Your task to perform on an android device: turn smart compose on in the gmail app Image 0: 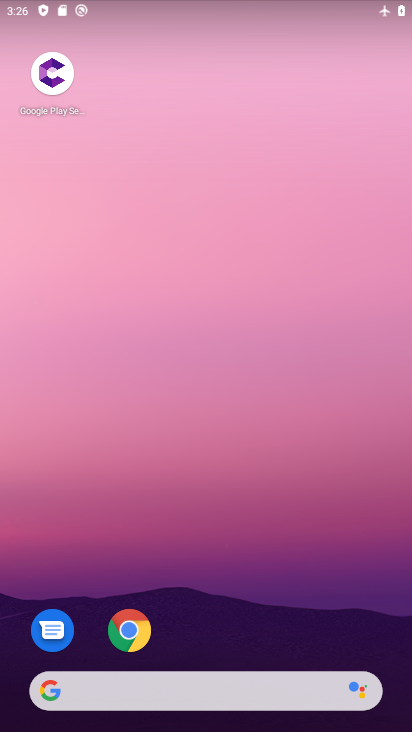
Step 0: click (267, 35)
Your task to perform on an android device: turn smart compose on in the gmail app Image 1: 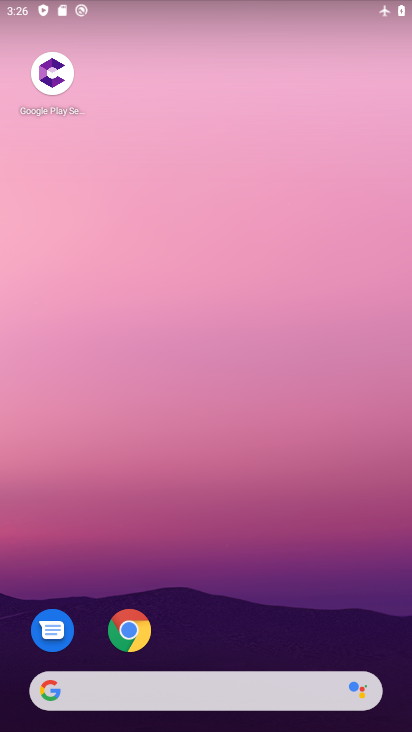
Step 1: drag from (188, 569) to (260, 37)
Your task to perform on an android device: turn smart compose on in the gmail app Image 2: 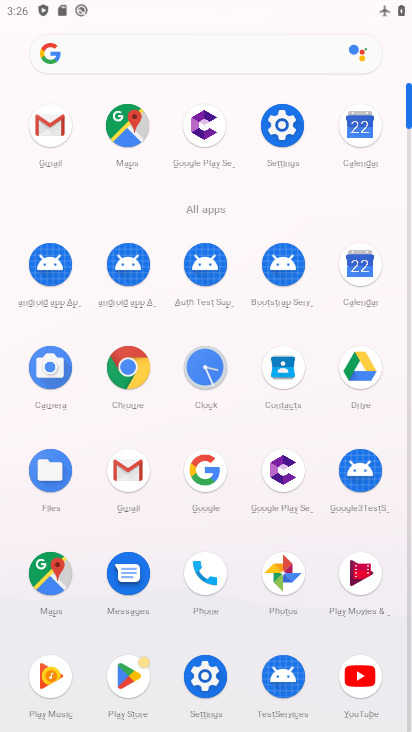
Step 2: click (133, 476)
Your task to perform on an android device: turn smart compose on in the gmail app Image 3: 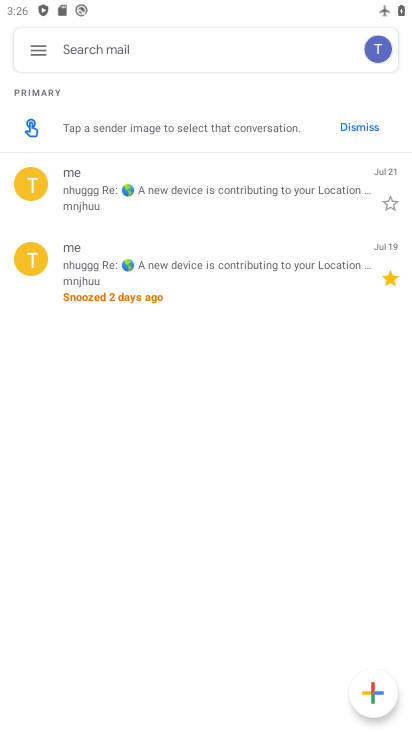
Step 3: click (41, 54)
Your task to perform on an android device: turn smart compose on in the gmail app Image 4: 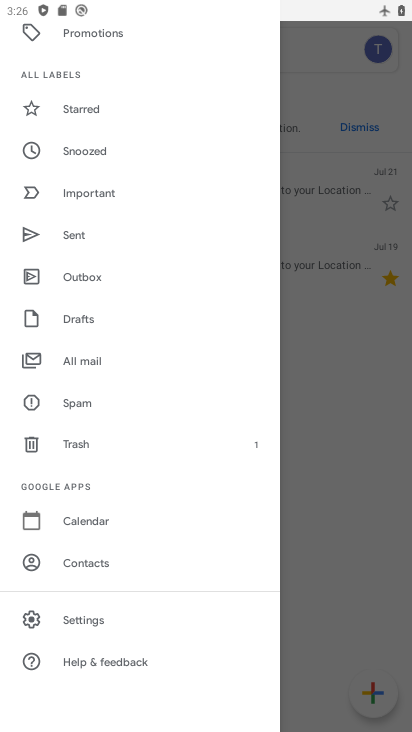
Step 4: click (100, 623)
Your task to perform on an android device: turn smart compose on in the gmail app Image 5: 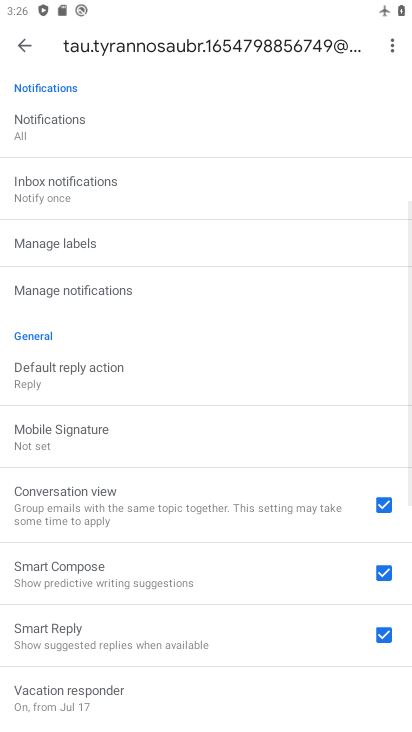
Step 5: task complete